Your task to perform on an android device: Go to eBay Image 0: 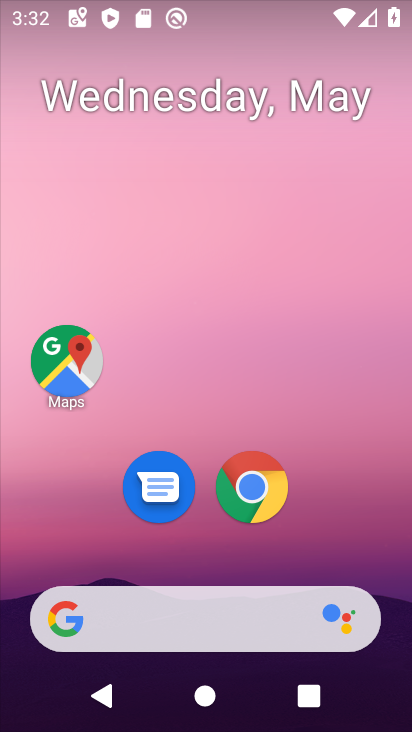
Step 0: drag from (331, 486) to (252, 22)
Your task to perform on an android device: Go to eBay Image 1: 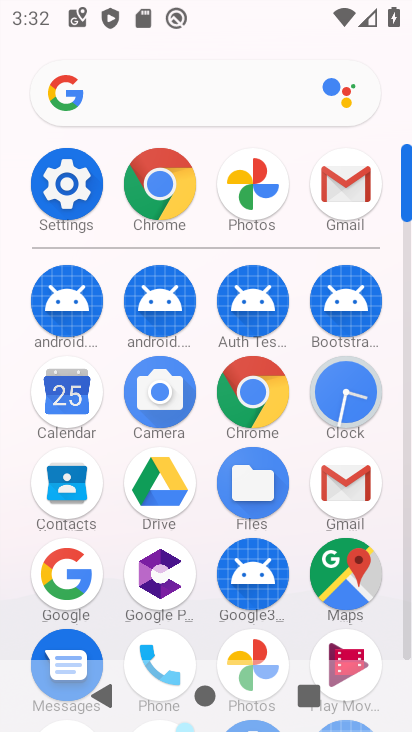
Step 1: drag from (11, 548) to (39, 253)
Your task to perform on an android device: Go to eBay Image 2: 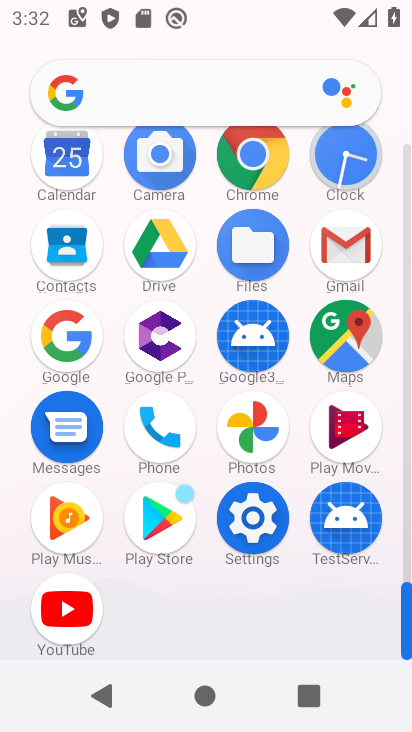
Step 2: click (249, 151)
Your task to perform on an android device: Go to eBay Image 3: 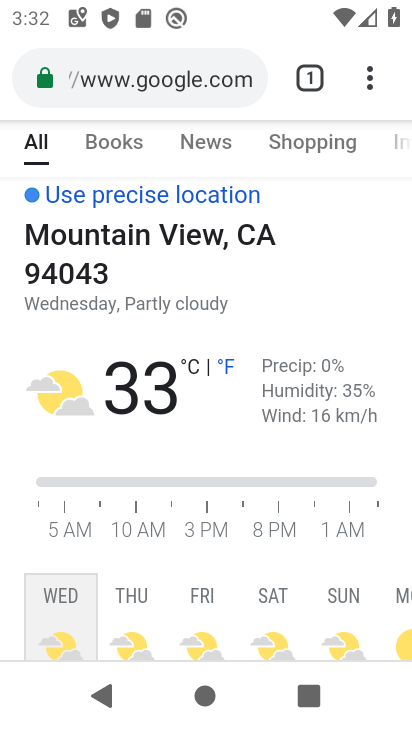
Step 3: click (173, 89)
Your task to perform on an android device: Go to eBay Image 4: 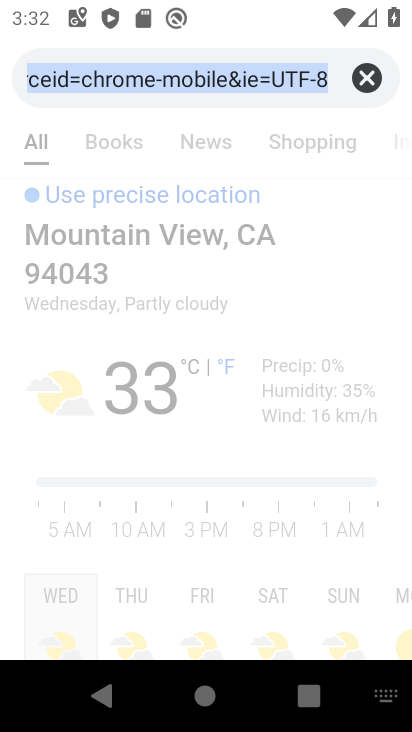
Step 4: click (364, 74)
Your task to perform on an android device: Go to eBay Image 5: 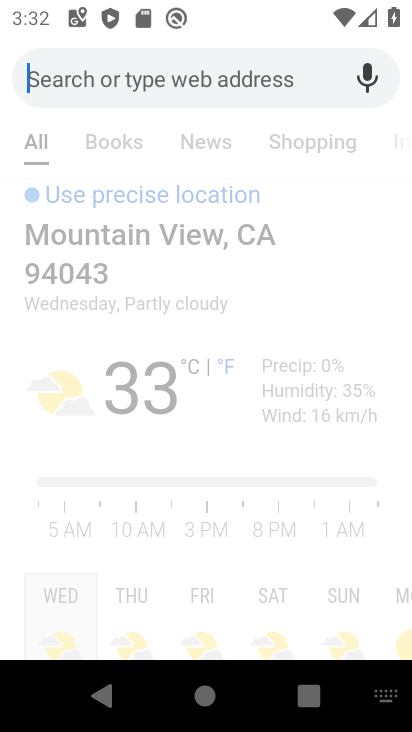
Step 5: type "eBay"
Your task to perform on an android device: Go to eBay Image 6: 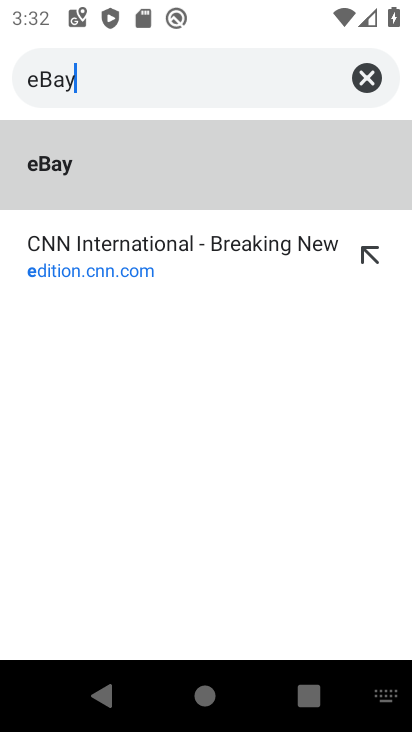
Step 6: type ""
Your task to perform on an android device: Go to eBay Image 7: 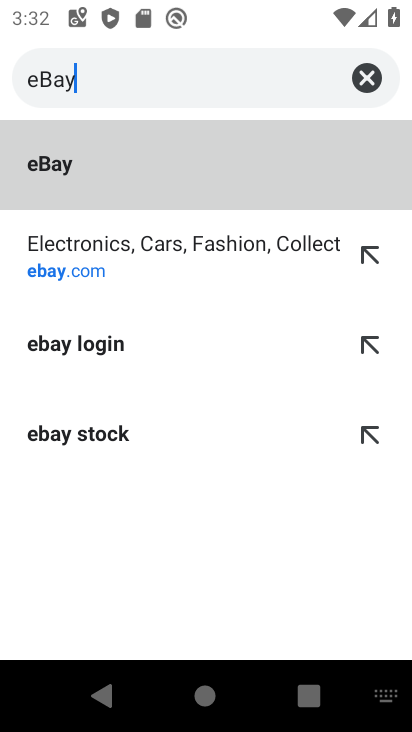
Step 7: click (120, 234)
Your task to perform on an android device: Go to eBay Image 8: 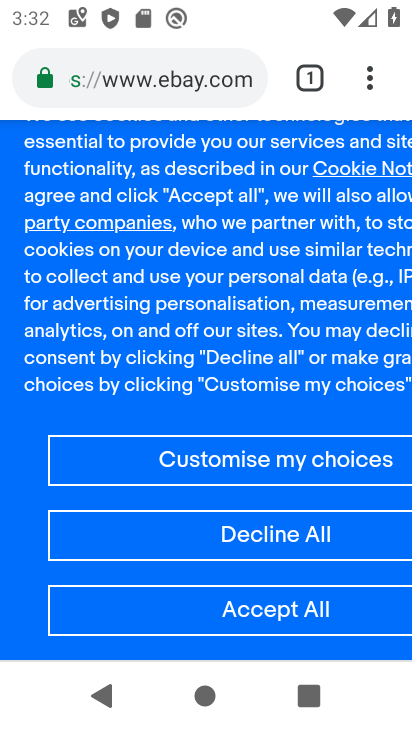
Step 8: task complete